Your task to perform on an android device: turn on priority inbox in the gmail app Image 0: 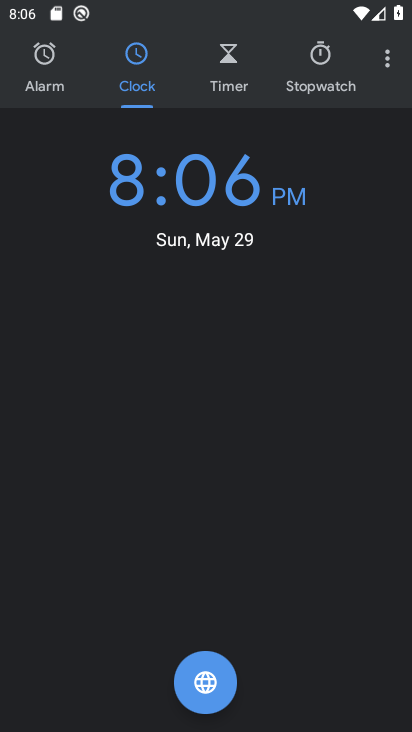
Step 0: press home button
Your task to perform on an android device: turn on priority inbox in the gmail app Image 1: 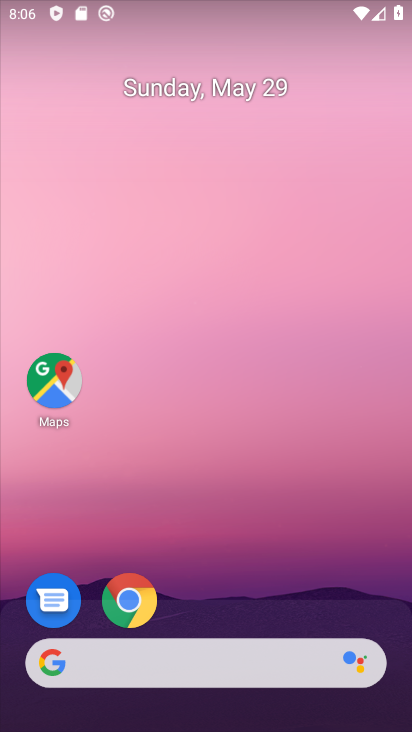
Step 1: drag from (92, 728) to (145, 6)
Your task to perform on an android device: turn on priority inbox in the gmail app Image 2: 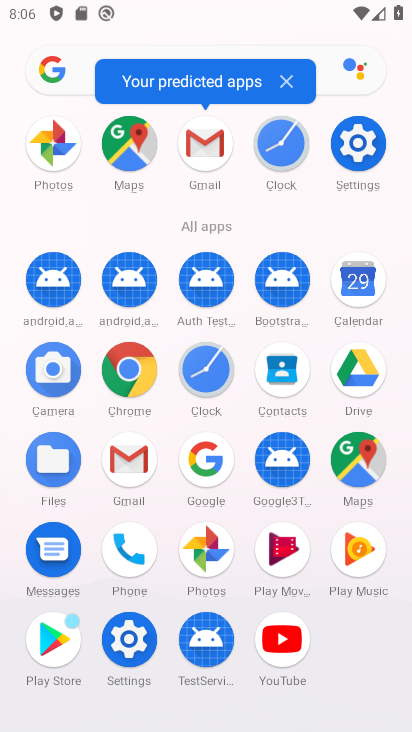
Step 2: click (198, 165)
Your task to perform on an android device: turn on priority inbox in the gmail app Image 3: 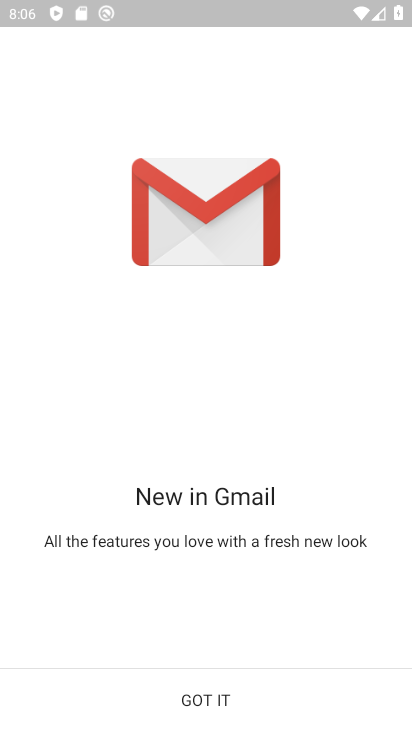
Step 3: click (250, 701)
Your task to perform on an android device: turn on priority inbox in the gmail app Image 4: 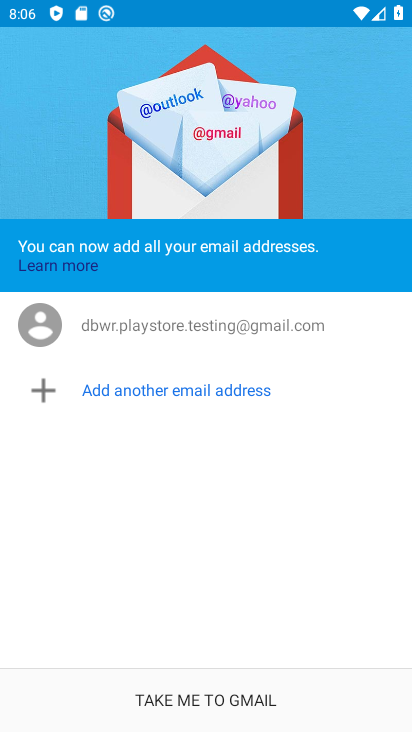
Step 4: click (228, 710)
Your task to perform on an android device: turn on priority inbox in the gmail app Image 5: 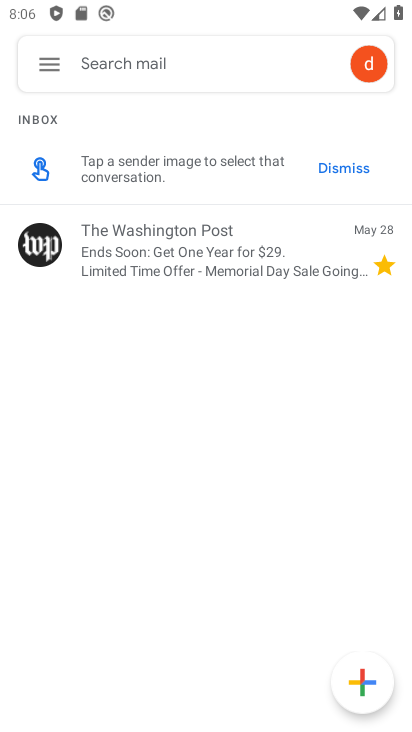
Step 5: click (46, 73)
Your task to perform on an android device: turn on priority inbox in the gmail app Image 6: 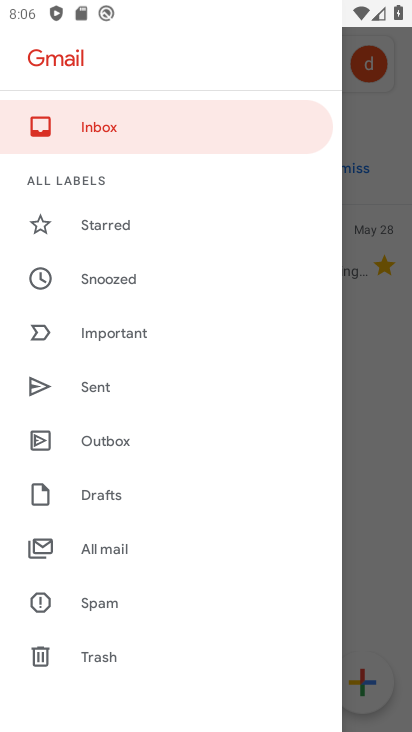
Step 6: drag from (156, 680) to (168, 194)
Your task to perform on an android device: turn on priority inbox in the gmail app Image 7: 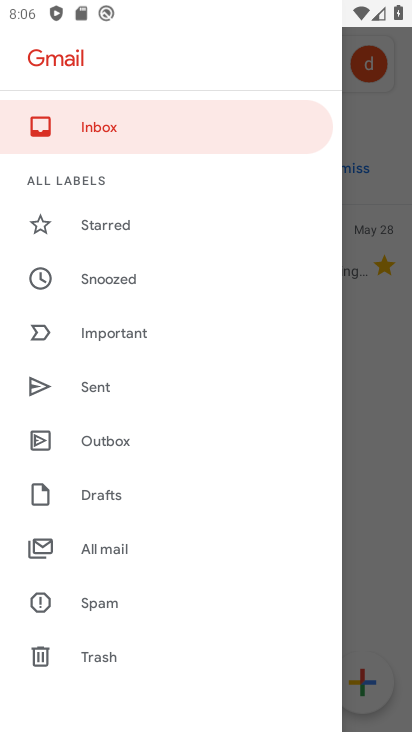
Step 7: drag from (130, 671) to (155, 242)
Your task to perform on an android device: turn on priority inbox in the gmail app Image 8: 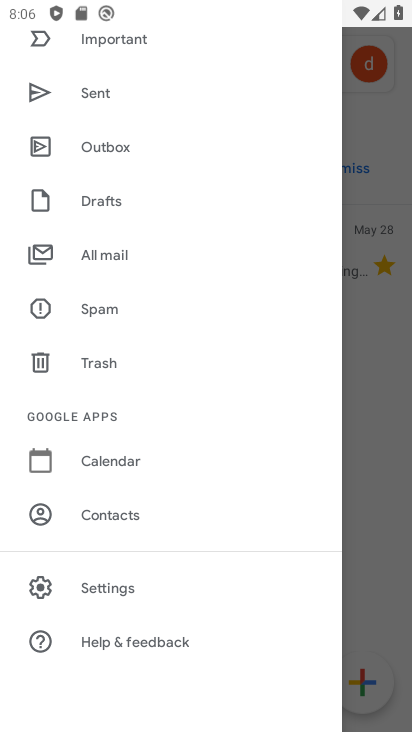
Step 8: click (114, 592)
Your task to perform on an android device: turn on priority inbox in the gmail app Image 9: 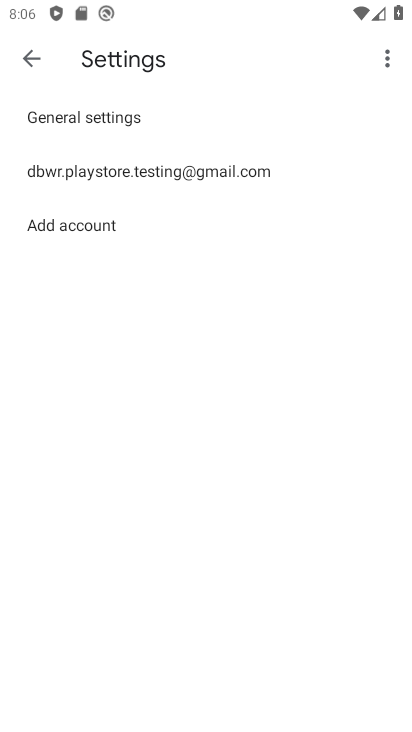
Step 9: click (169, 175)
Your task to perform on an android device: turn on priority inbox in the gmail app Image 10: 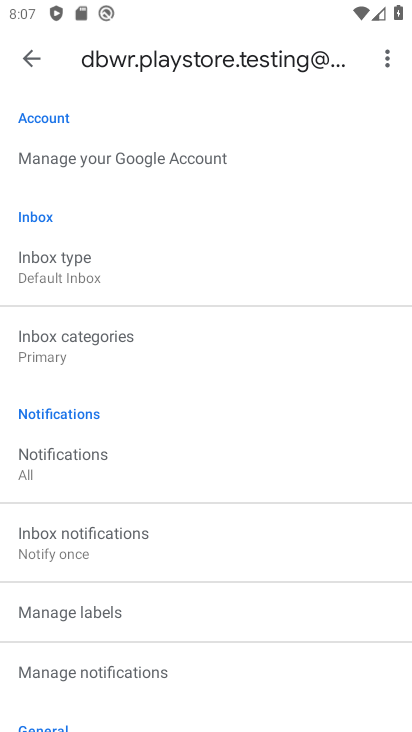
Step 10: click (95, 284)
Your task to perform on an android device: turn on priority inbox in the gmail app Image 11: 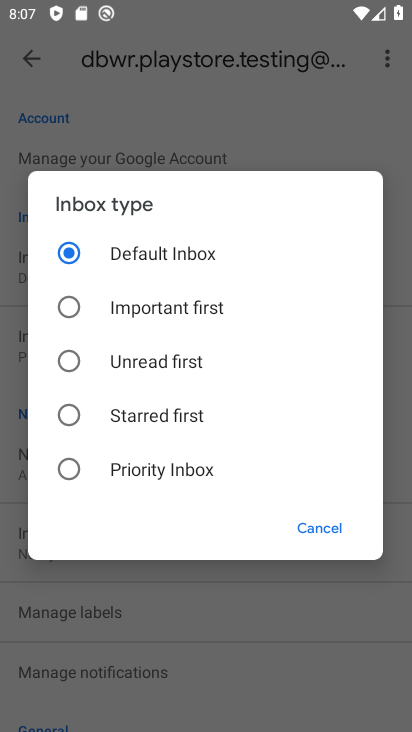
Step 11: click (109, 476)
Your task to perform on an android device: turn on priority inbox in the gmail app Image 12: 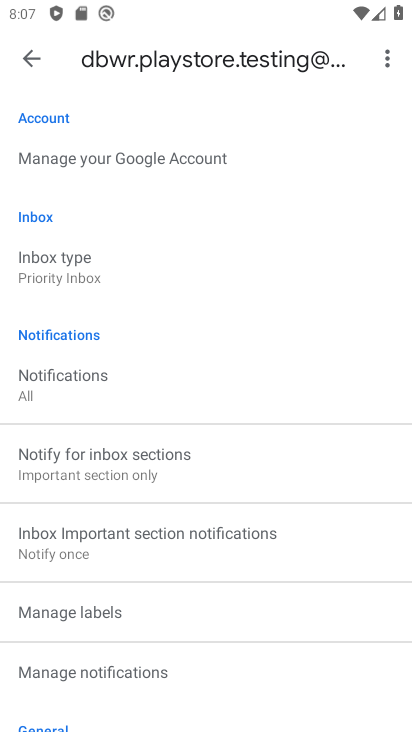
Step 12: task complete